Your task to perform on an android device: turn off improve location accuracy Image 0: 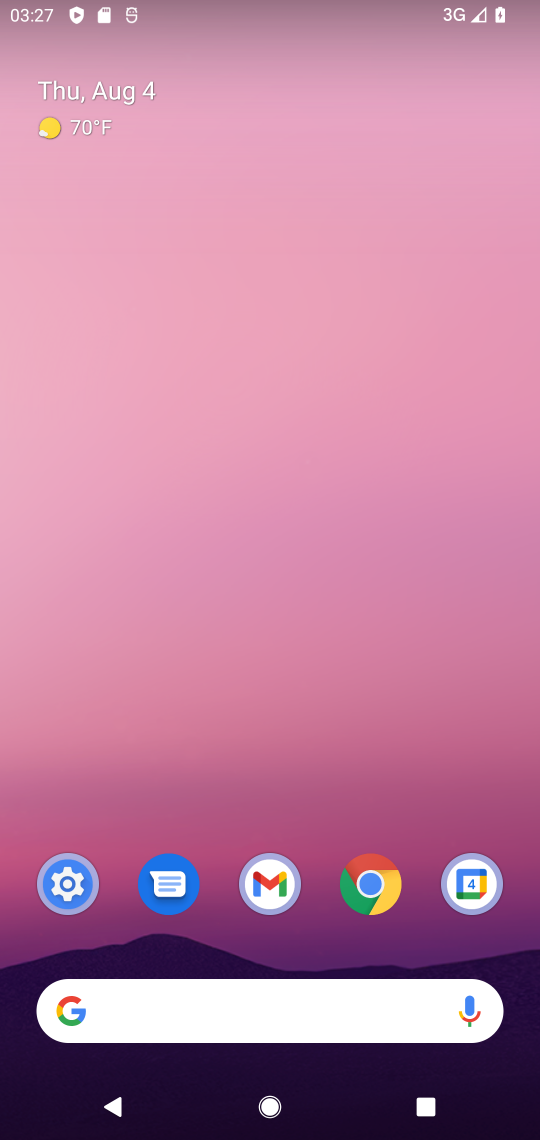
Step 0: press home button
Your task to perform on an android device: turn off improve location accuracy Image 1: 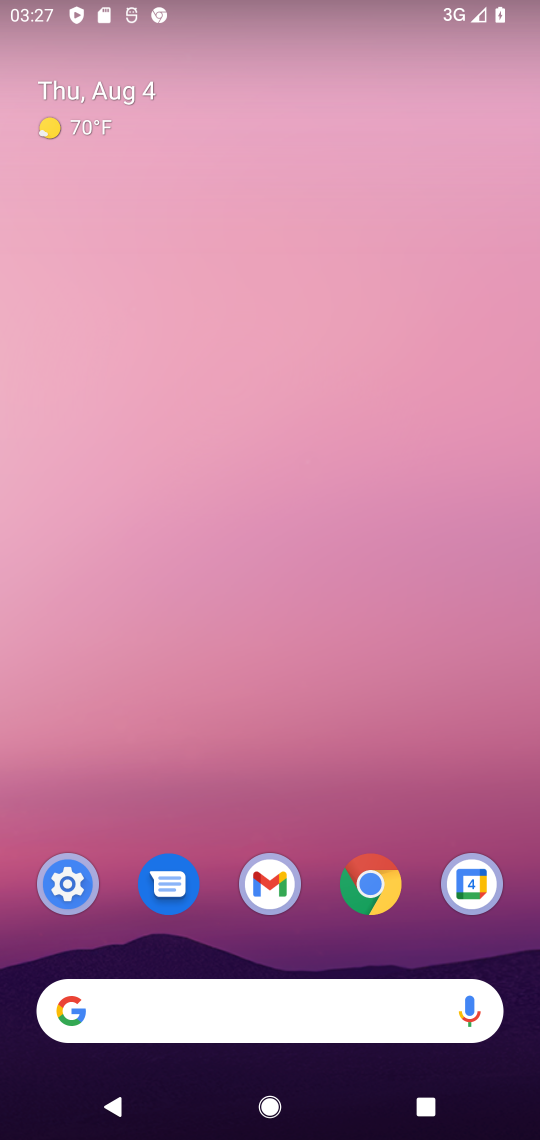
Step 1: drag from (314, 837) to (311, 182)
Your task to perform on an android device: turn off improve location accuracy Image 2: 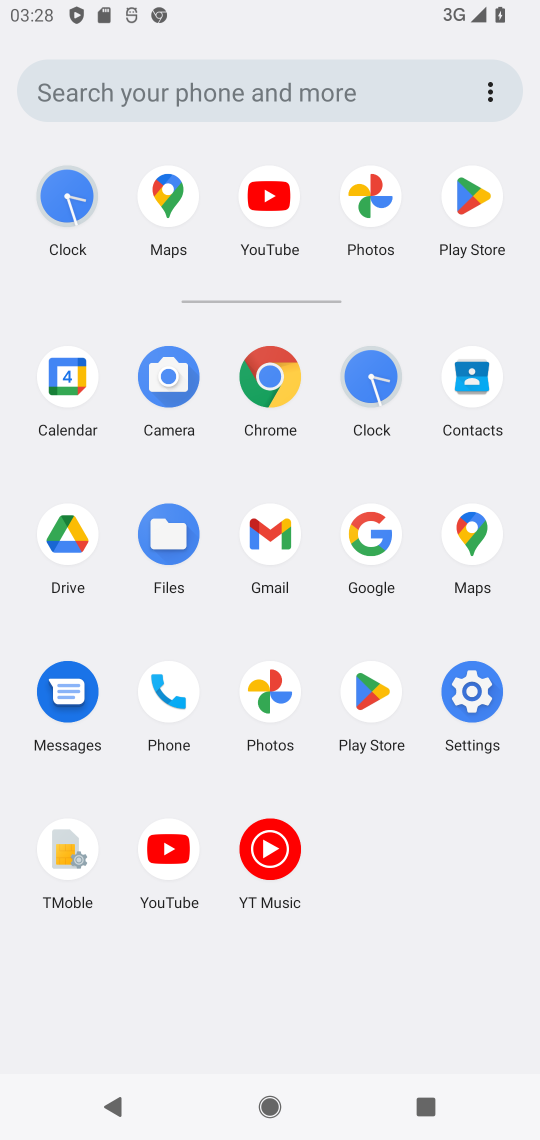
Step 2: click (478, 699)
Your task to perform on an android device: turn off improve location accuracy Image 3: 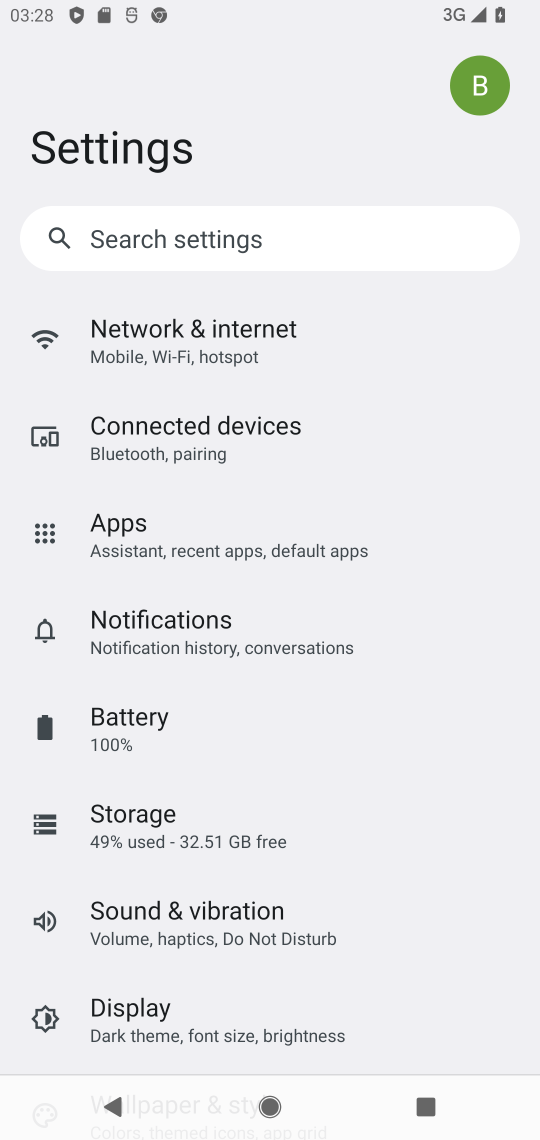
Step 3: drag from (417, 912) to (432, 742)
Your task to perform on an android device: turn off improve location accuracy Image 4: 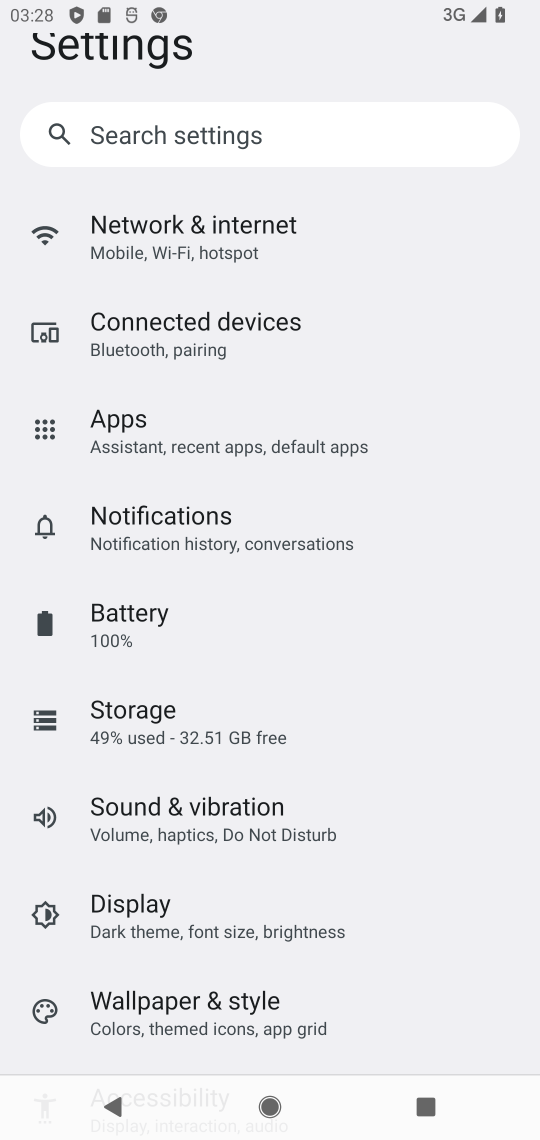
Step 4: drag from (443, 956) to (455, 777)
Your task to perform on an android device: turn off improve location accuracy Image 5: 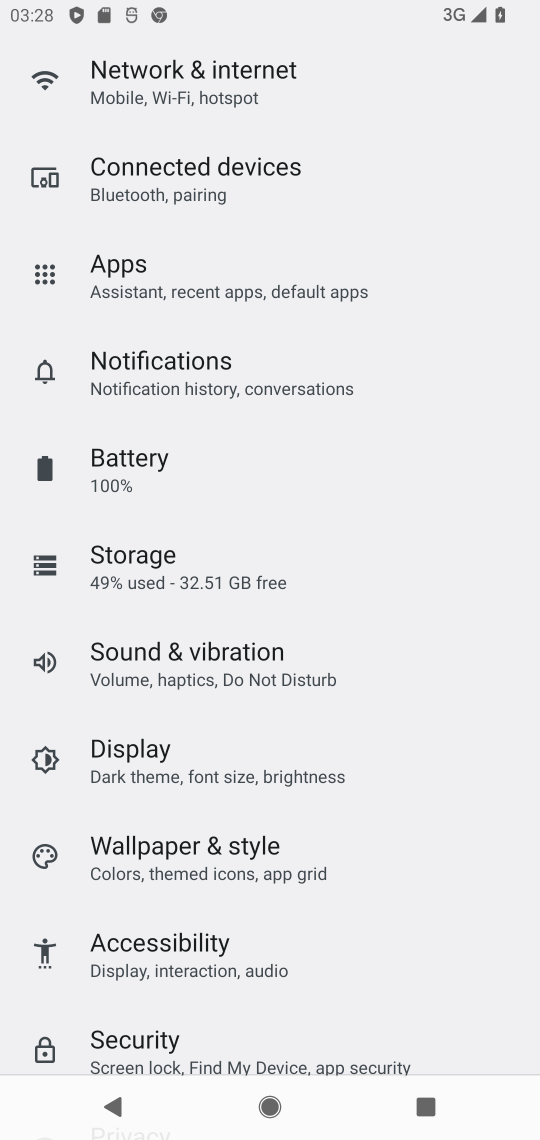
Step 5: drag from (419, 985) to (432, 763)
Your task to perform on an android device: turn off improve location accuracy Image 6: 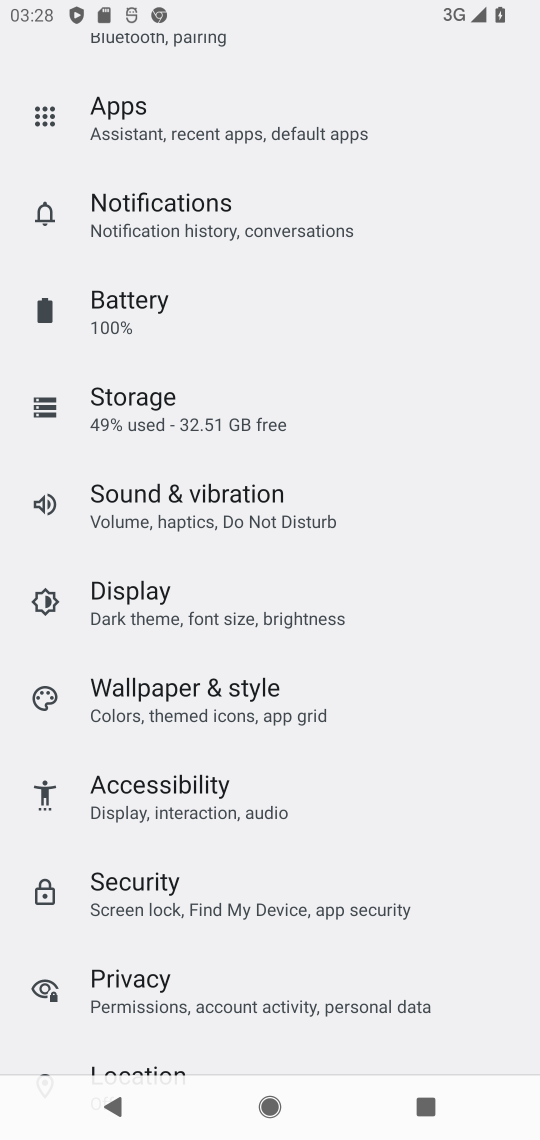
Step 6: drag from (462, 1008) to (469, 793)
Your task to perform on an android device: turn off improve location accuracy Image 7: 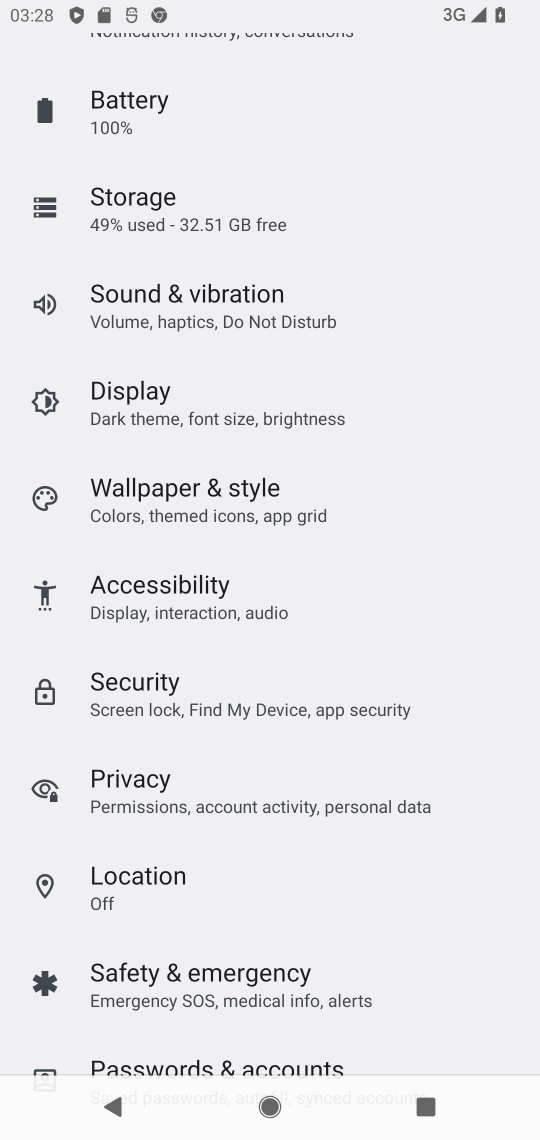
Step 7: drag from (457, 975) to (450, 690)
Your task to perform on an android device: turn off improve location accuracy Image 8: 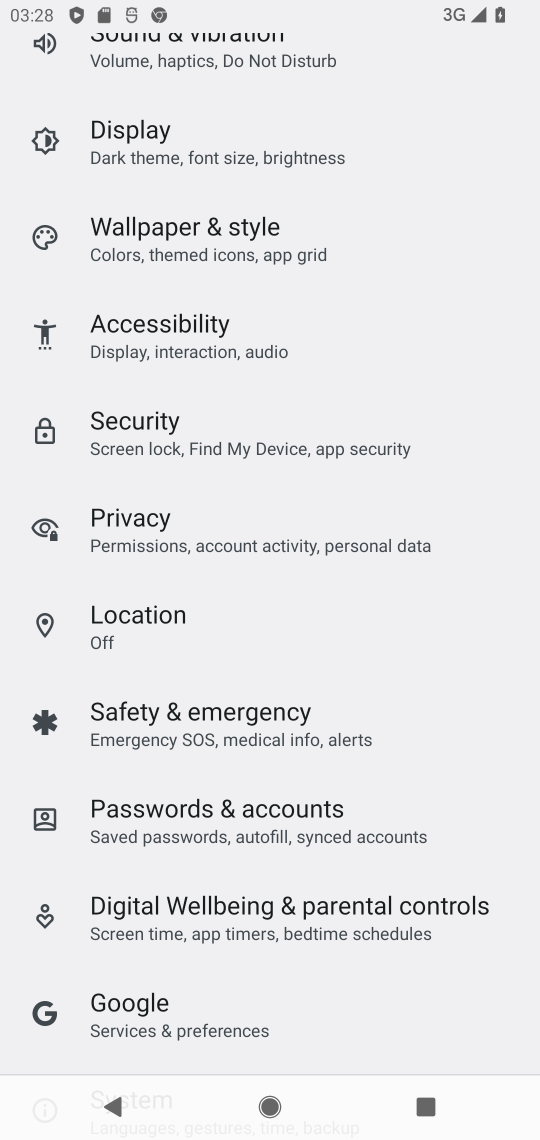
Step 8: click (349, 623)
Your task to perform on an android device: turn off improve location accuracy Image 9: 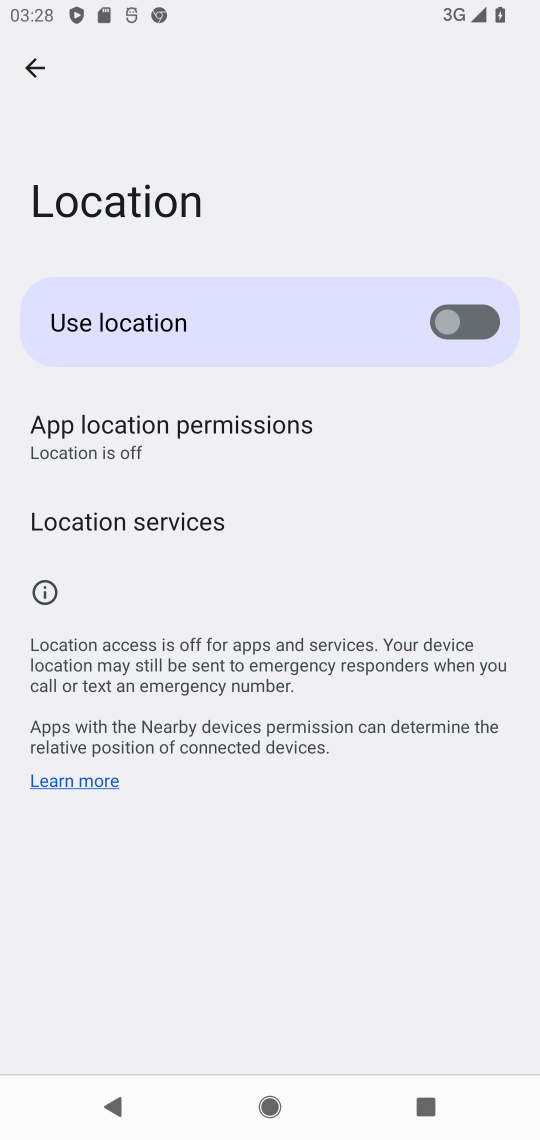
Step 9: click (216, 533)
Your task to perform on an android device: turn off improve location accuracy Image 10: 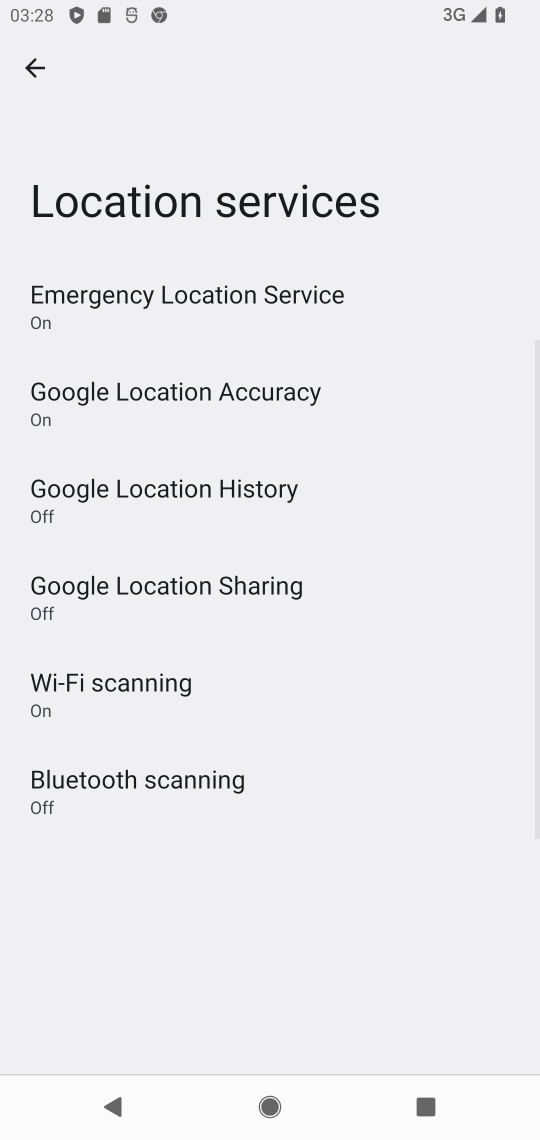
Step 10: click (252, 408)
Your task to perform on an android device: turn off improve location accuracy Image 11: 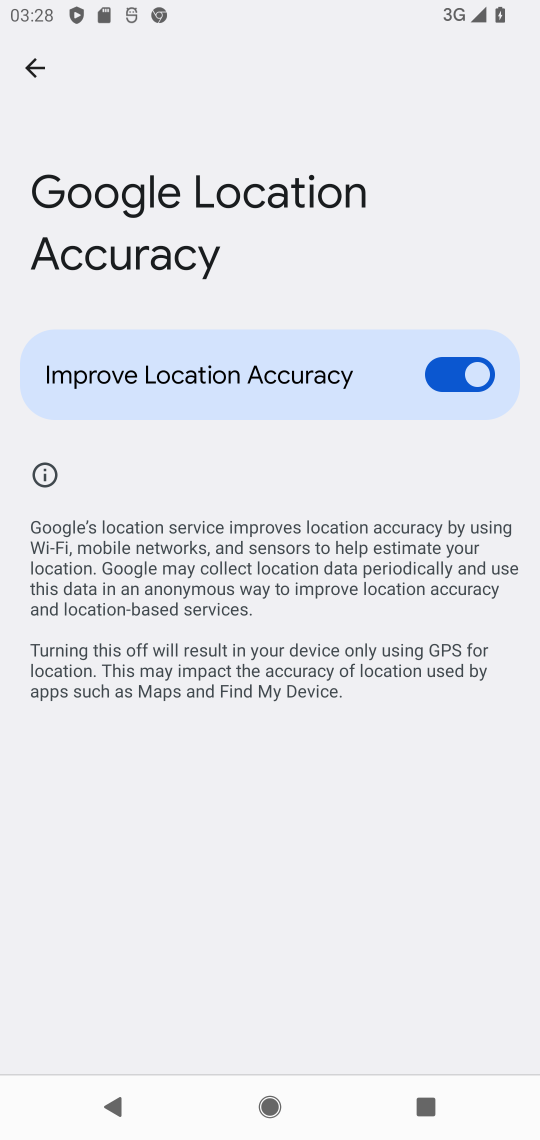
Step 11: click (442, 371)
Your task to perform on an android device: turn off improve location accuracy Image 12: 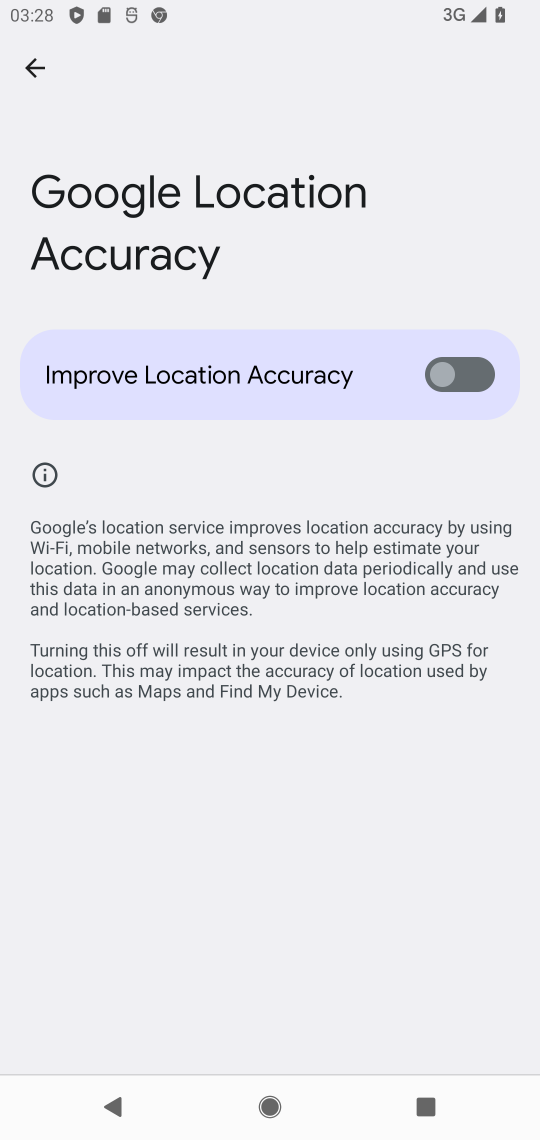
Step 12: task complete